Your task to perform on an android device: star an email in the gmail app Image 0: 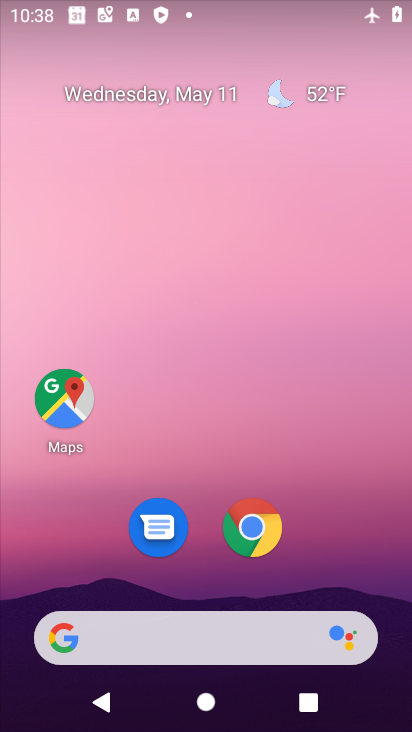
Step 0: click (391, 85)
Your task to perform on an android device: star an email in the gmail app Image 1: 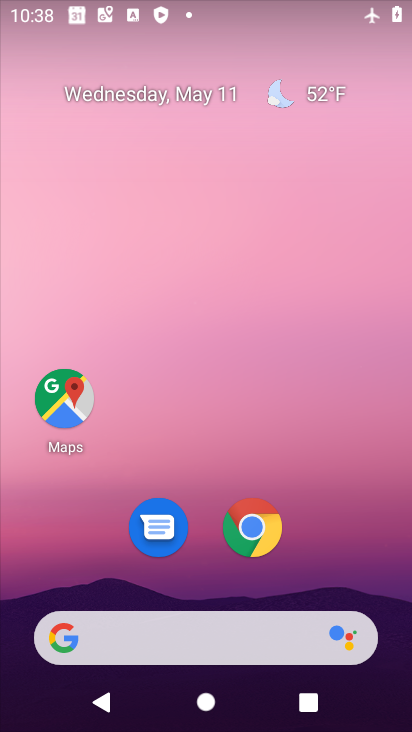
Step 1: drag from (381, 480) to (347, 116)
Your task to perform on an android device: star an email in the gmail app Image 2: 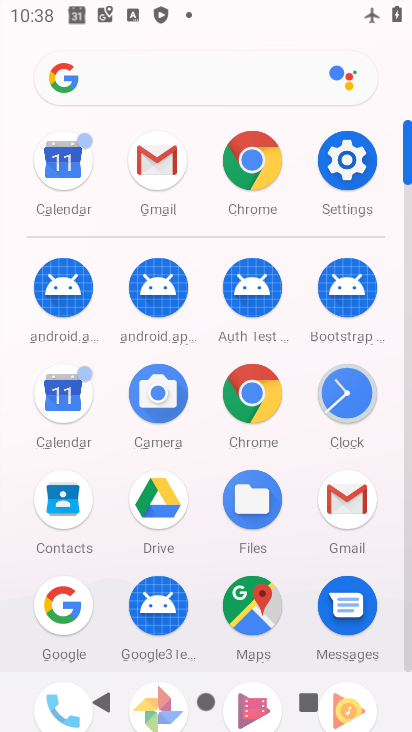
Step 2: click (365, 506)
Your task to perform on an android device: star an email in the gmail app Image 3: 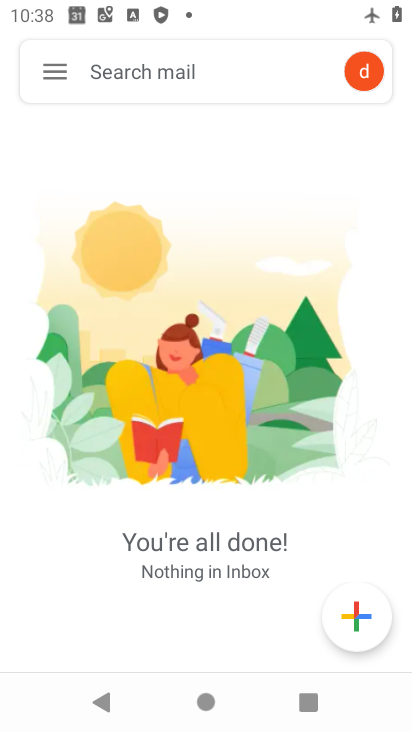
Step 3: click (54, 77)
Your task to perform on an android device: star an email in the gmail app Image 4: 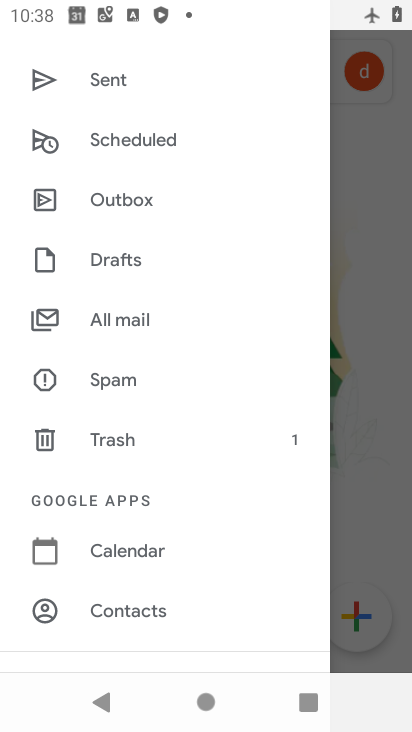
Step 4: drag from (151, 174) to (146, 476)
Your task to perform on an android device: star an email in the gmail app Image 5: 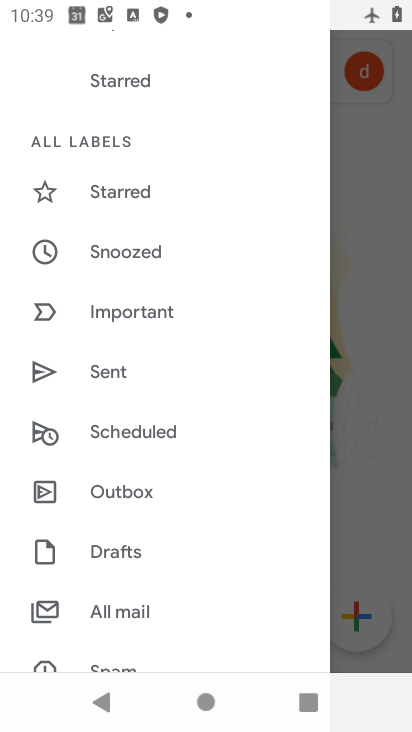
Step 5: drag from (118, 570) to (188, 185)
Your task to perform on an android device: star an email in the gmail app Image 6: 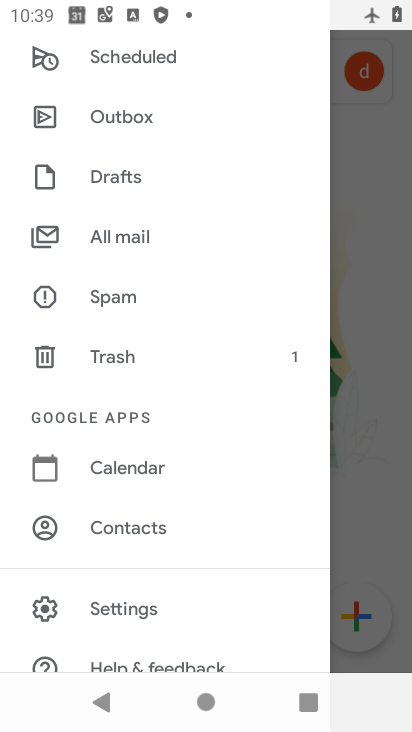
Step 6: drag from (170, 524) to (252, 117)
Your task to perform on an android device: star an email in the gmail app Image 7: 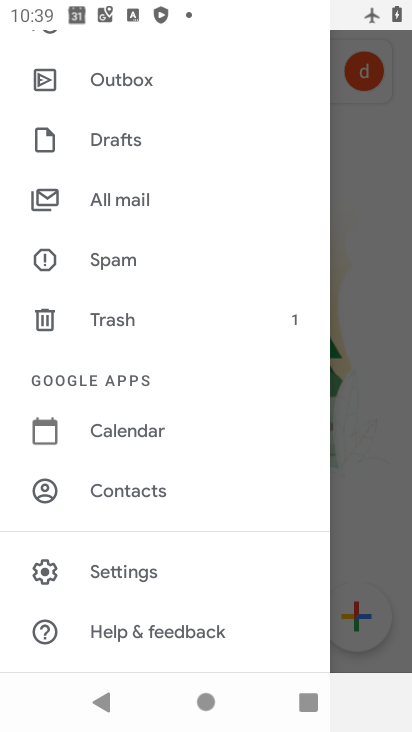
Step 7: drag from (195, 316) to (230, 620)
Your task to perform on an android device: star an email in the gmail app Image 8: 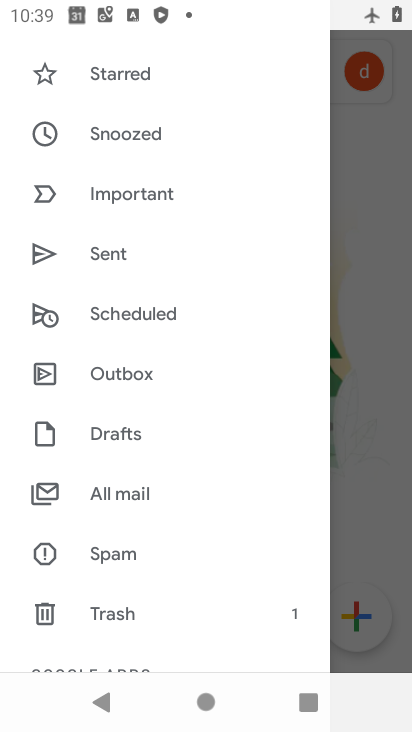
Step 8: drag from (196, 211) to (145, 637)
Your task to perform on an android device: star an email in the gmail app Image 9: 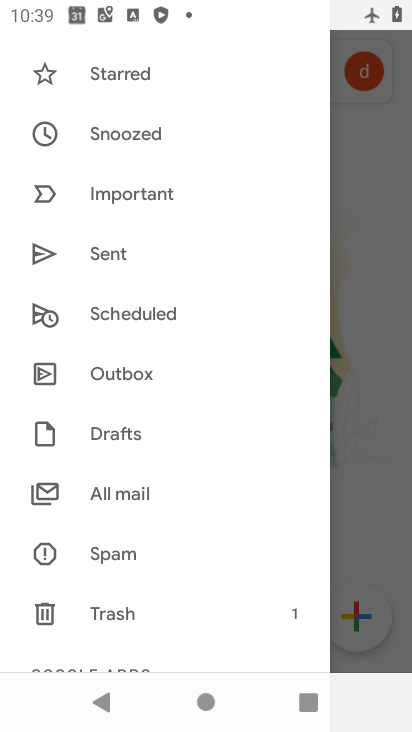
Step 9: drag from (154, 168) to (203, 506)
Your task to perform on an android device: star an email in the gmail app Image 10: 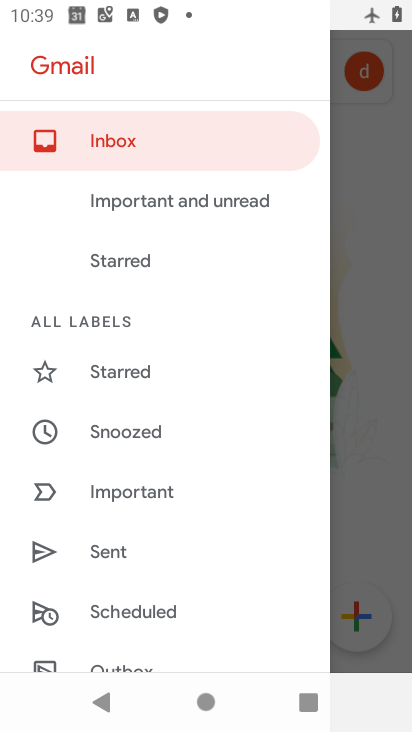
Step 10: click (136, 130)
Your task to perform on an android device: star an email in the gmail app Image 11: 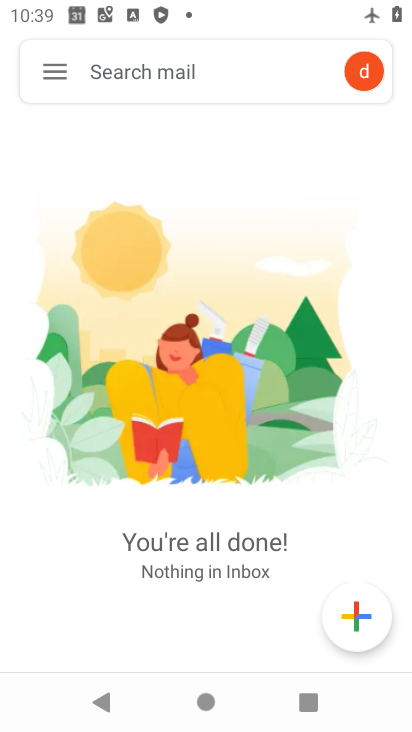
Step 11: task complete